Your task to perform on an android device: Go to Google Image 0: 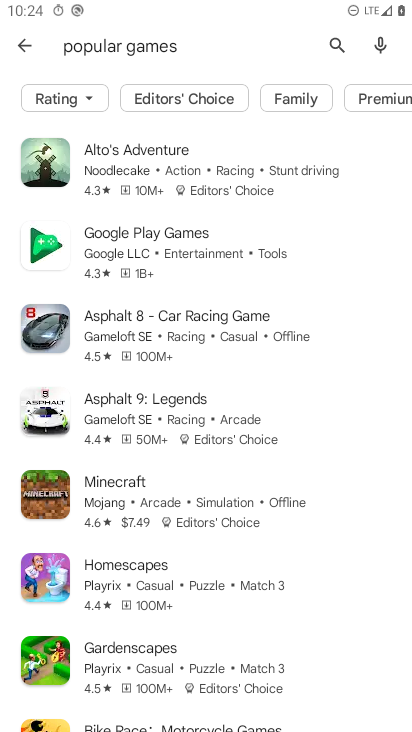
Step 0: press home button
Your task to perform on an android device: Go to Google Image 1: 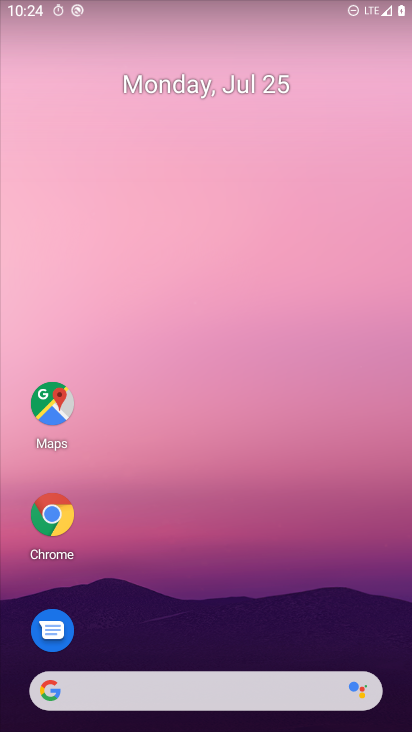
Step 1: click (106, 684)
Your task to perform on an android device: Go to Google Image 2: 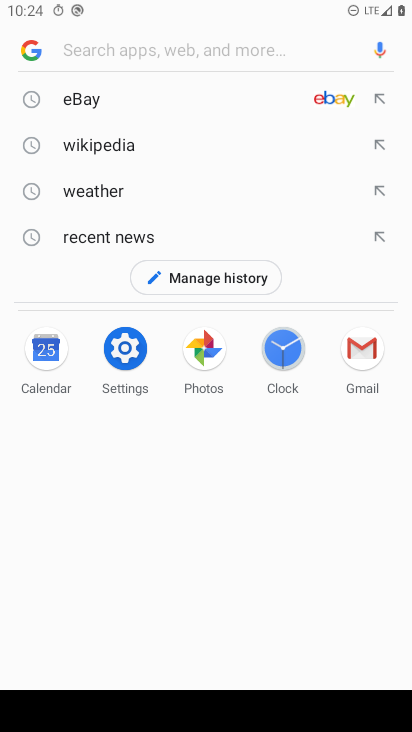
Step 2: task complete